Your task to perform on an android device: delete the emails in spam in the gmail app Image 0: 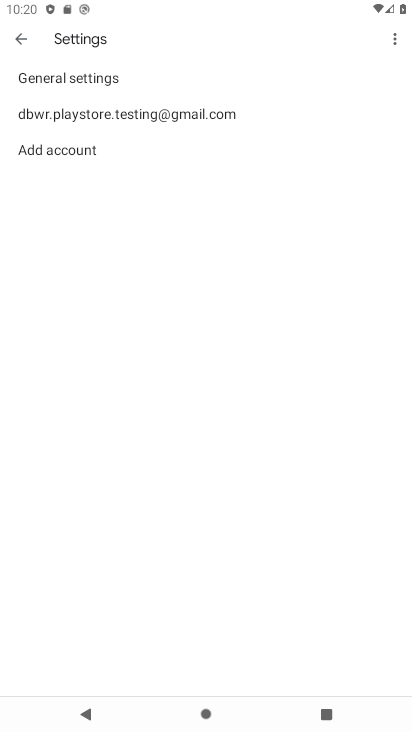
Step 0: press home button
Your task to perform on an android device: delete the emails in spam in the gmail app Image 1: 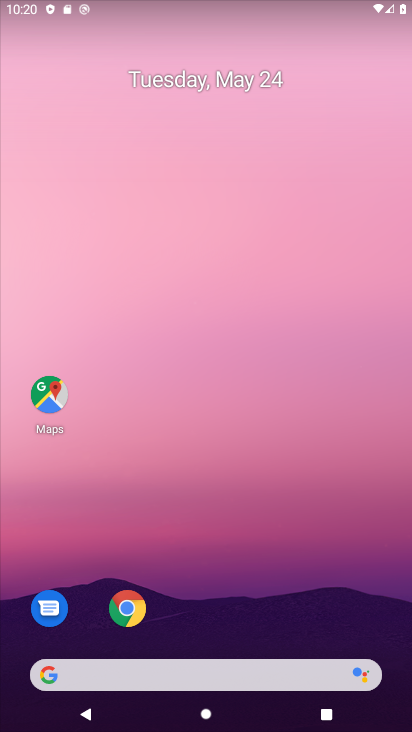
Step 1: drag from (376, 629) to (299, 21)
Your task to perform on an android device: delete the emails in spam in the gmail app Image 2: 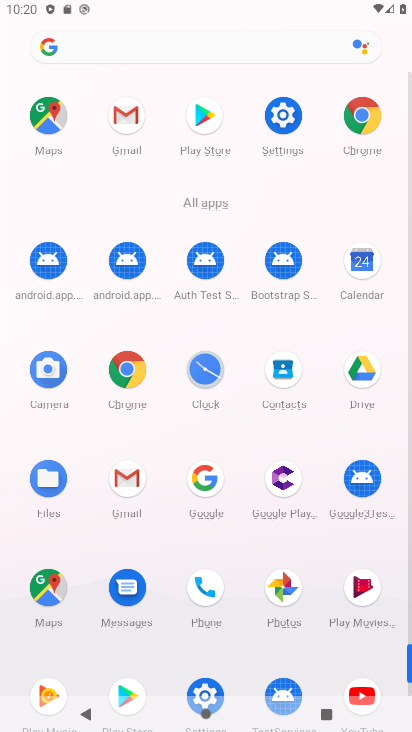
Step 2: click (407, 690)
Your task to perform on an android device: delete the emails in spam in the gmail app Image 3: 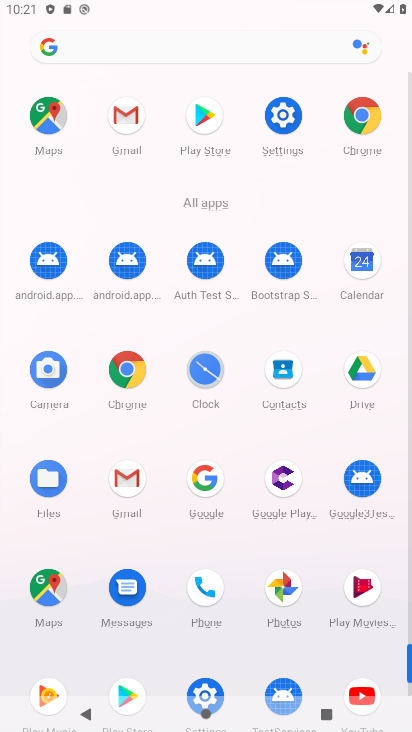
Step 3: click (126, 476)
Your task to perform on an android device: delete the emails in spam in the gmail app Image 4: 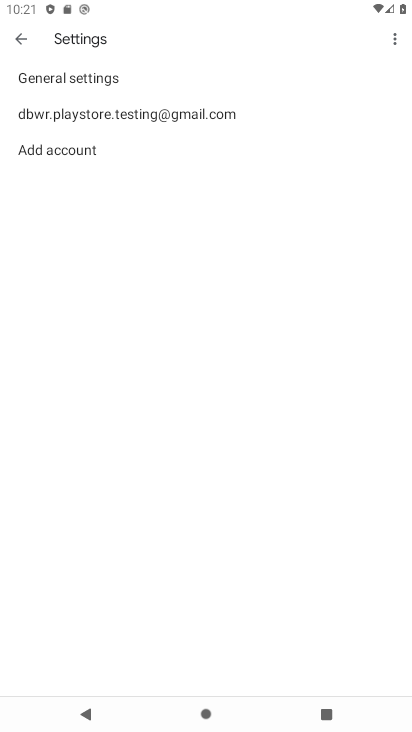
Step 4: click (115, 121)
Your task to perform on an android device: delete the emails in spam in the gmail app Image 5: 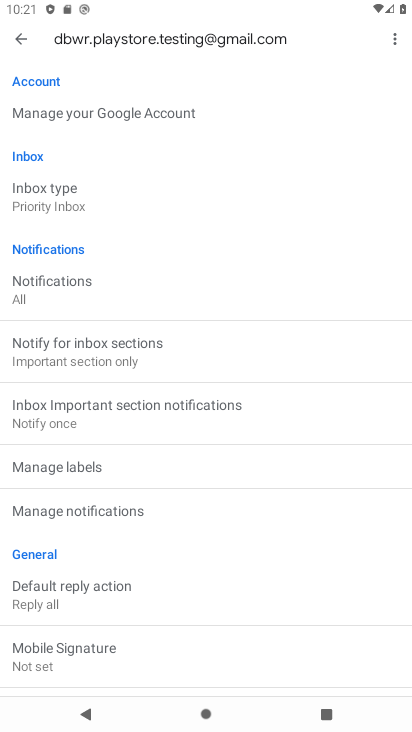
Step 5: press back button
Your task to perform on an android device: delete the emails in spam in the gmail app Image 6: 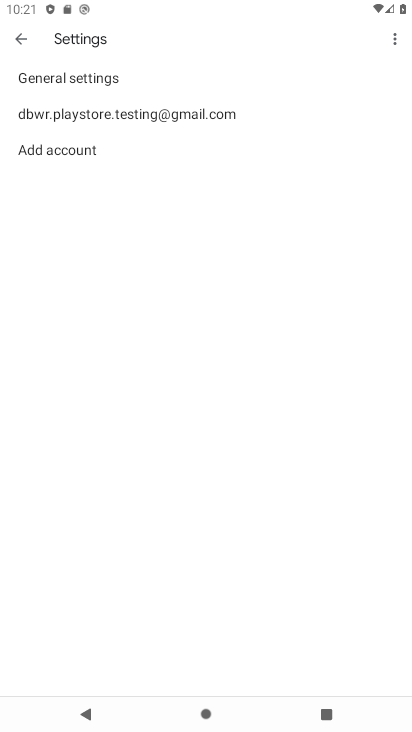
Step 6: press back button
Your task to perform on an android device: delete the emails in spam in the gmail app Image 7: 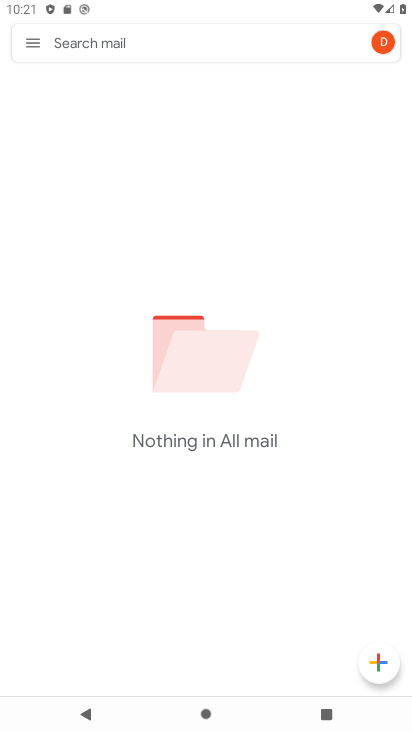
Step 7: click (31, 41)
Your task to perform on an android device: delete the emails in spam in the gmail app Image 8: 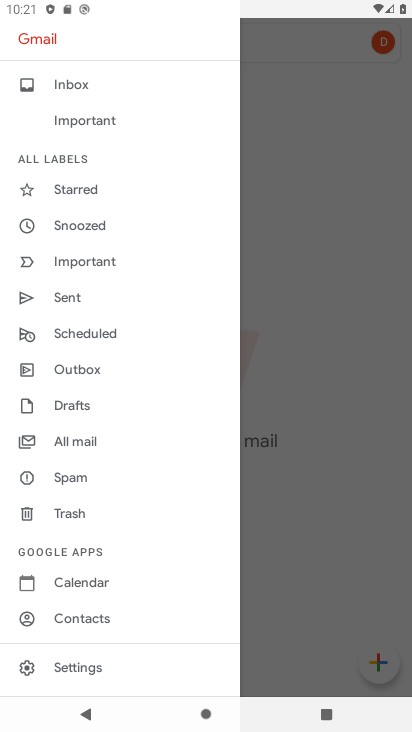
Step 8: click (62, 474)
Your task to perform on an android device: delete the emails in spam in the gmail app Image 9: 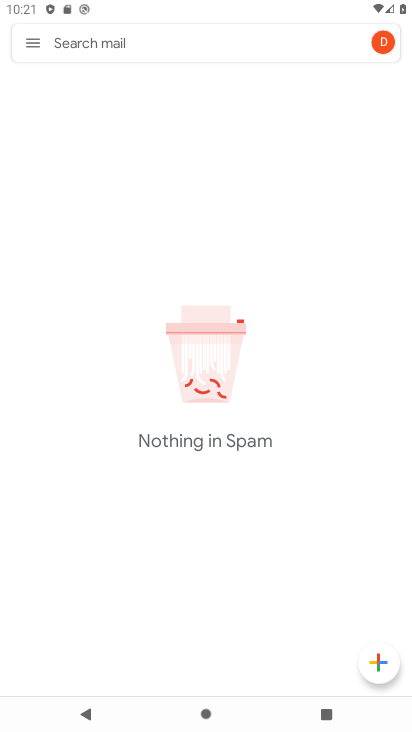
Step 9: task complete